Your task to perform on an android device: move a message to another label in the gmail app Image 0: 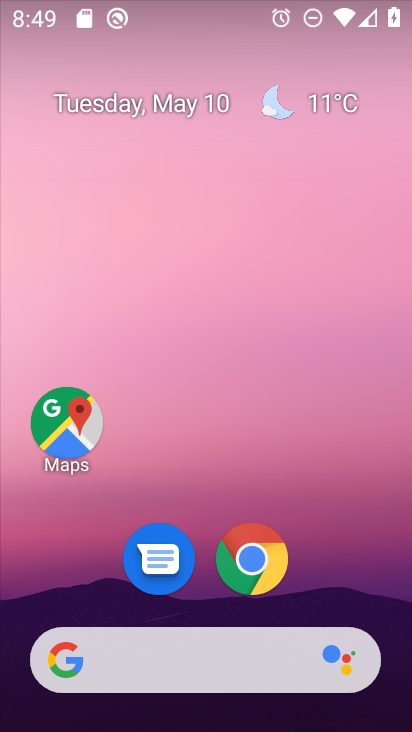
Step 0: drag from (218, 722) to (222, 124)
Your task to perform on an android device: move a message to another label in the gmail app Image 1: 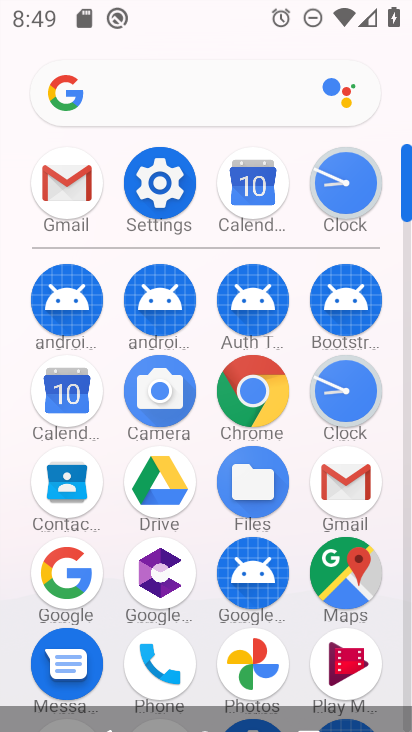
Step 1: click (359, 494)
Your task to perform on an android device: move a message to another label in the gmail app Image 2: 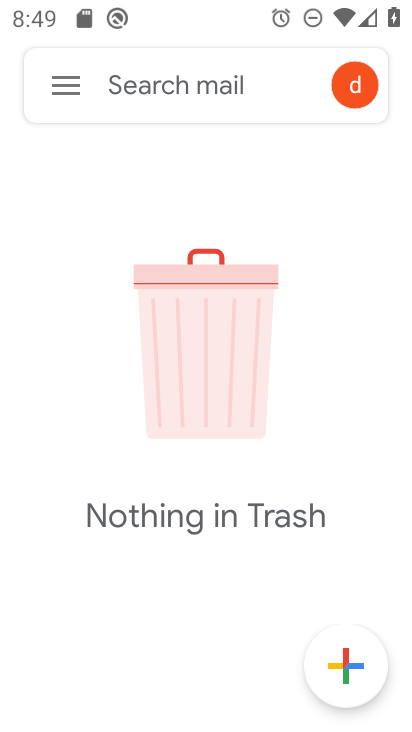
Step 2: click (58, 87)
Your task to perform on an android device: move a message to another label in the gmail app Image 3: 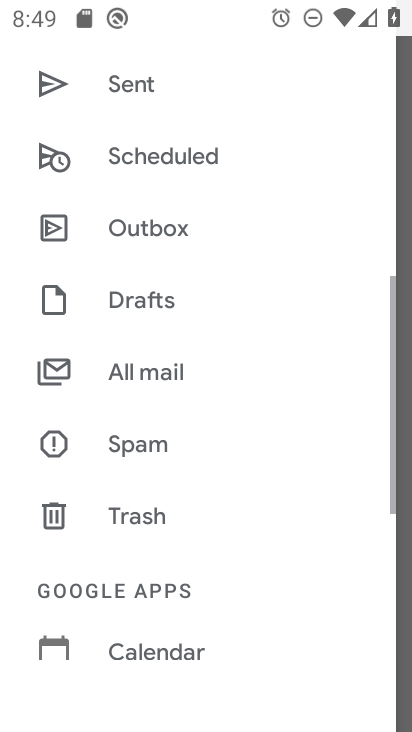
Step 3: drag from (191, 105) to (226, 571)
Your task to perform on an android device: move a message to another label in the gmail app Image 4: 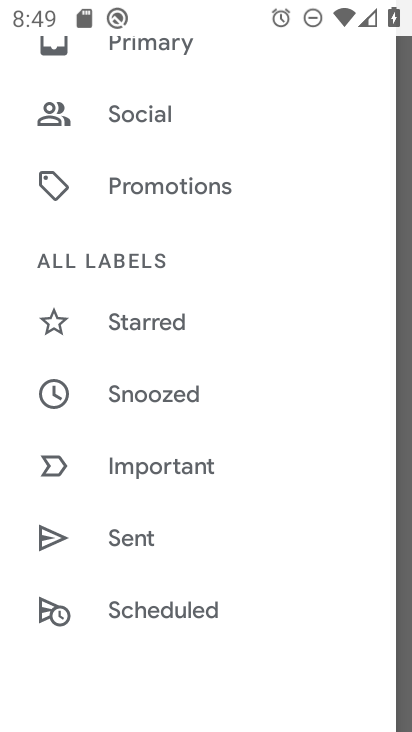
Step 4: drag from (244, 112) to (261, 632)
Your task to perform on an android device: move a message to another label in the gmail app Image 5: 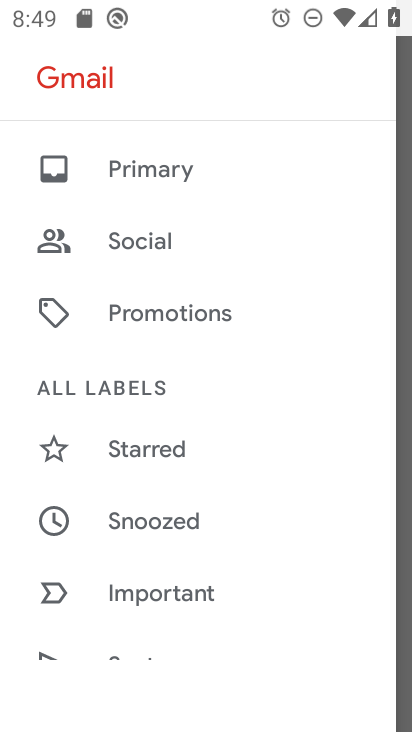
Step 5: click (167, 167)
Your task to perform on an android device: move a message to another label in the gmail app Image 6: 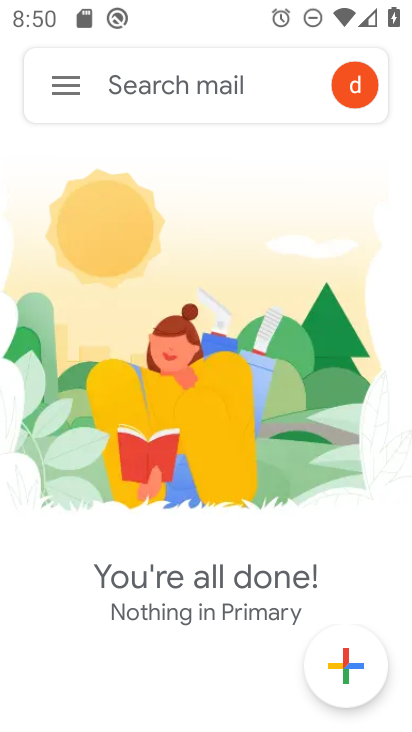
Step 6: task complete